Your task to perform on an android device: turn on wifi Image 0: 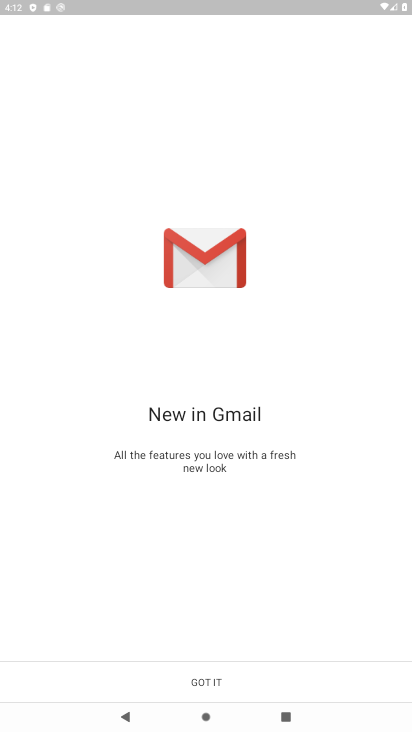
Step 0: press home button
Your task to perform on an android device: turn on wifi Image 1: 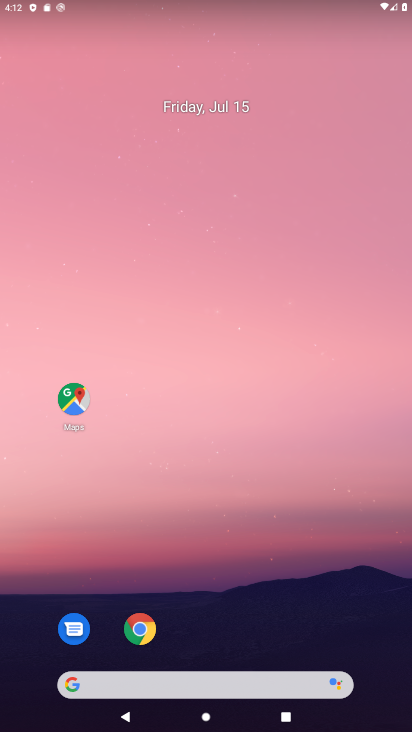
Step 1: drag from (212, 586) to (212, 34)
Your task to perform on an android device: turn on wifi Image 2: 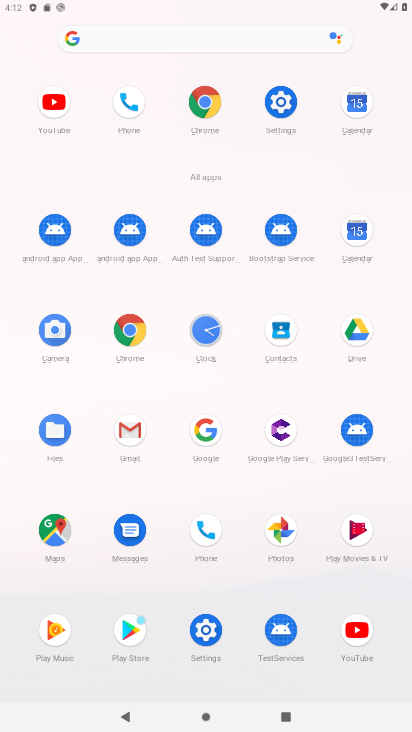
Step 2: click (282, 101)
Your task to perform on an android device: turn on wifi Image 3: 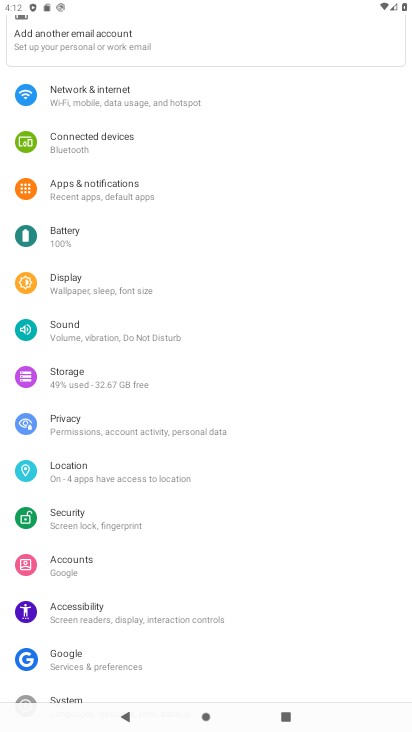
Step 3: click (111, 92)
Your task to perform on an android device: turn on wifi Image 4: 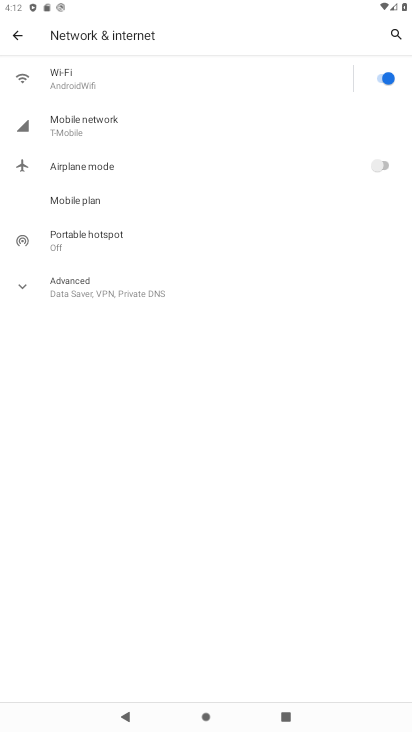
Step 4: task complete